Your task to perform on an android device: toggle location history Image 0: 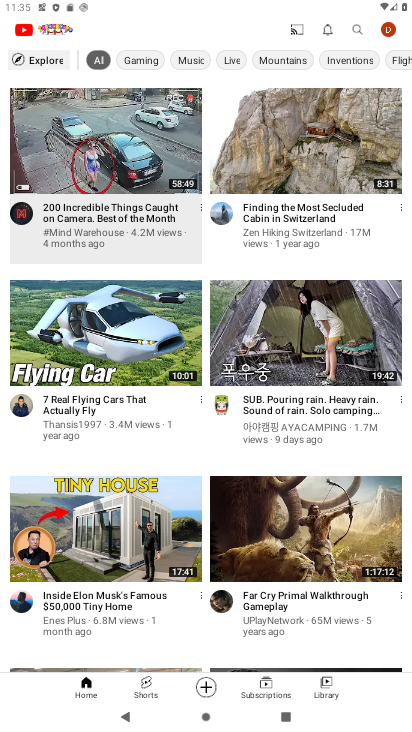
Step 0: press home button
Your task to perform on an android device: toggle location history Image 1: 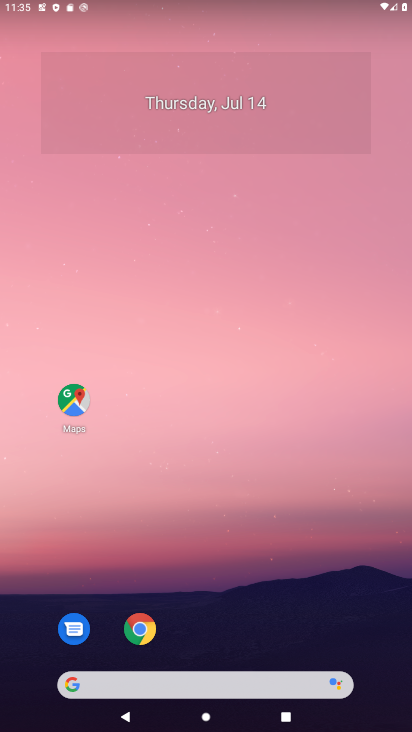
Step 1: drag from (272, 608) to (272, 95)
Your task to perform on an android device: toggle location history Image 2: 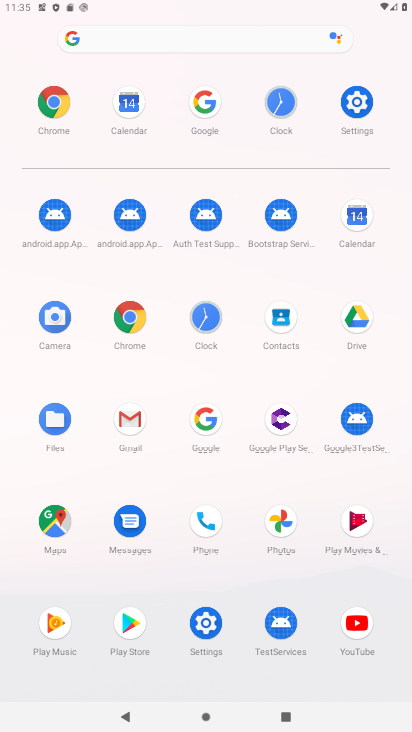
Step 2: click (352, 101)
Your task to perform on an android device: toggle location history Image 3: 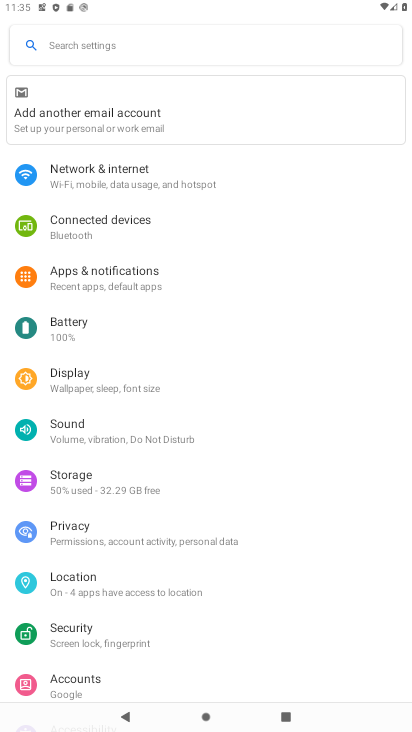
Step 3: click (62, 573)
Your task to perform on an android device: toggle location history Image 4: 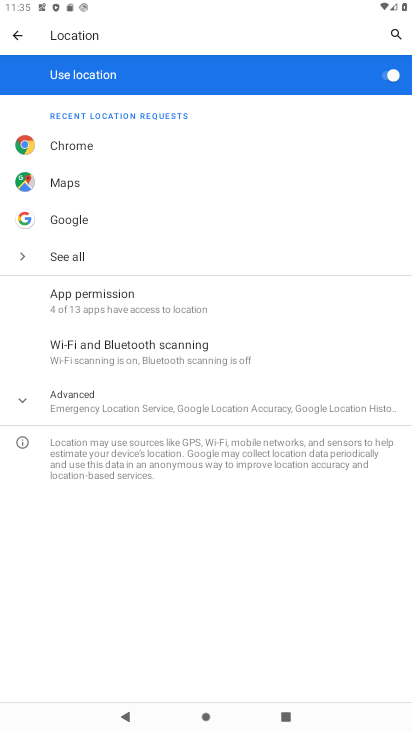
Step 4: click (27, 399)
Your task to perform on an android device: toggle location history Image 5: 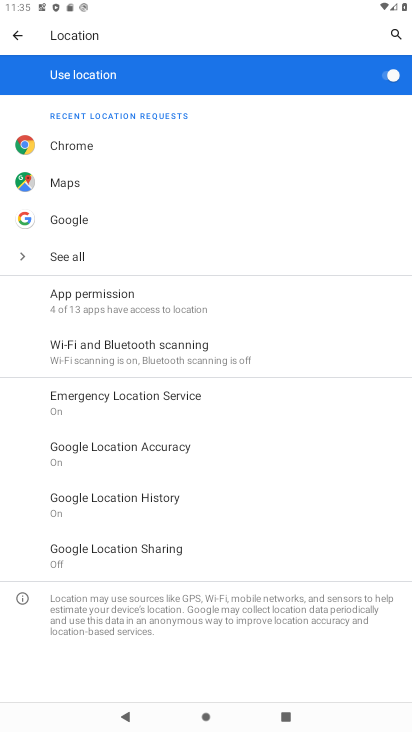
Step 5: click (117, 501)
Your task to perform on an android device: toggle location history Image 6: 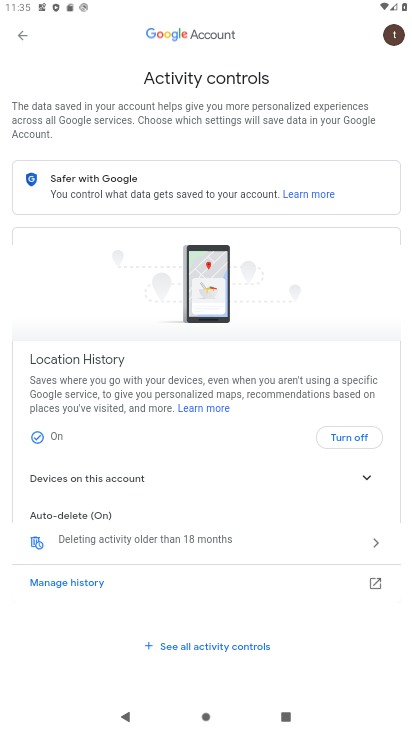
Step 6: click (345, 433)
Your task to perform on an android device: toggle location history Image 7: 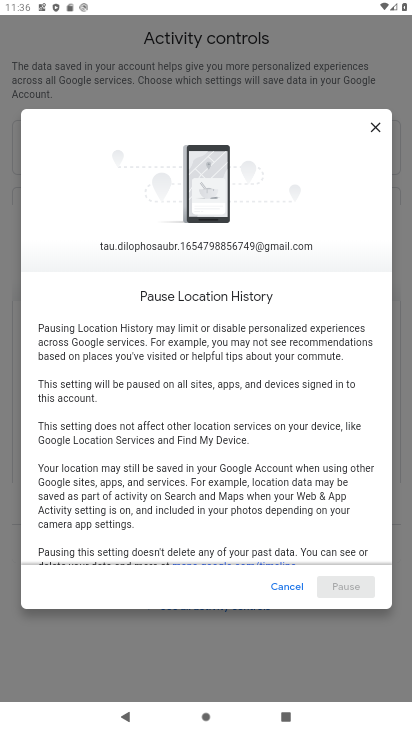
Step 7: drag from (313, 505) to (286, 185)
Your task to perform on an android device: toggle location history Image 8: 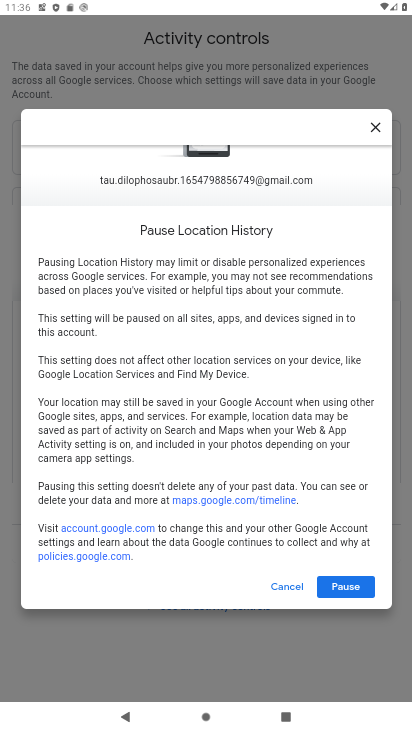
Step 8: click (342, 586)
Your task to perform on an android device: toggle location history Image 9: 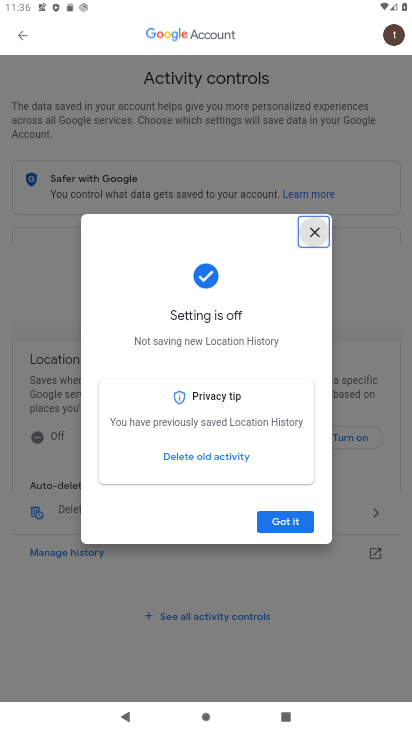
Step 9: click (287, 530)
Your task to perform on an android device: toggle location history Image 10: 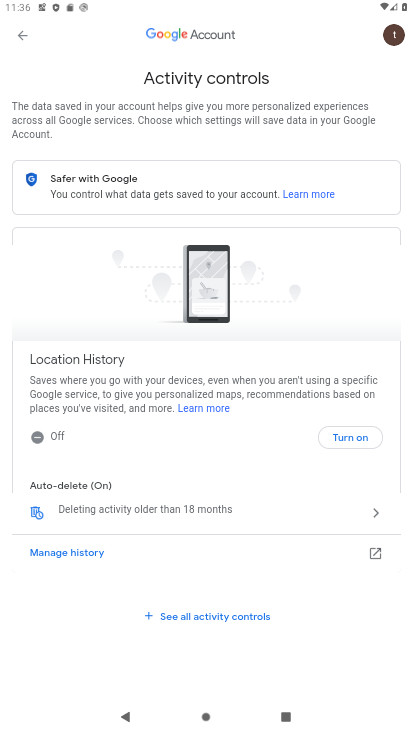
Step 10: task complete